Your task to perform on an android device: delete location history Image 0: 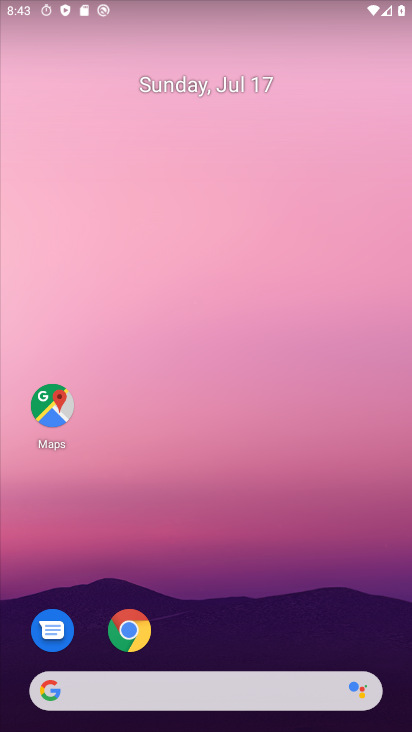
Step 0: drag from (0, 724) to (237, 141)
Your task to perform on an android device: delete location history Image 1: 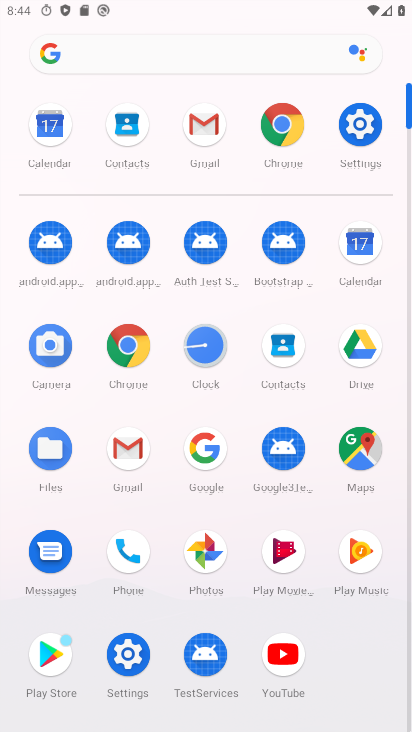
Step 1: click (130, 651)
Your task to perform on an android device: delete location history Image 2: 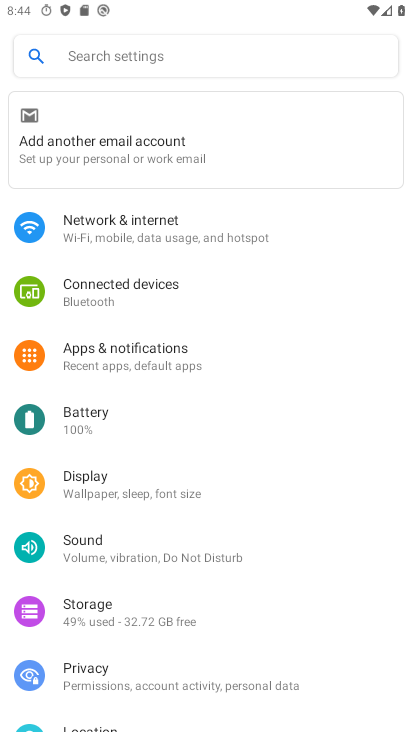
Step 2: drag from (251, 648) to (278, 335)
Your task to perform on an android device: delete location history Image 3: 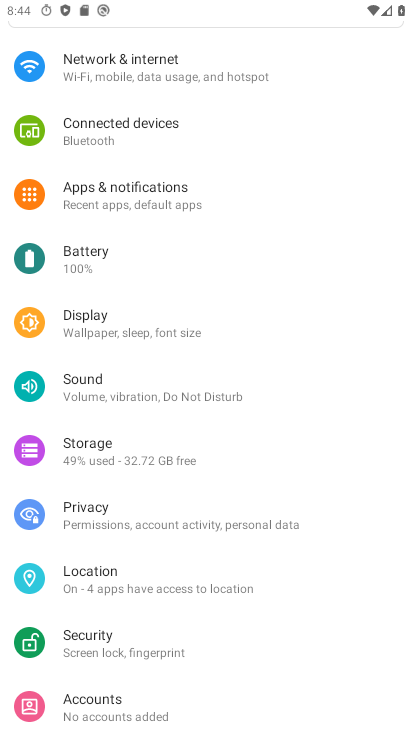
Step 3: click (81, 581)
Your task to perform on an android device: delete location history Image 4: 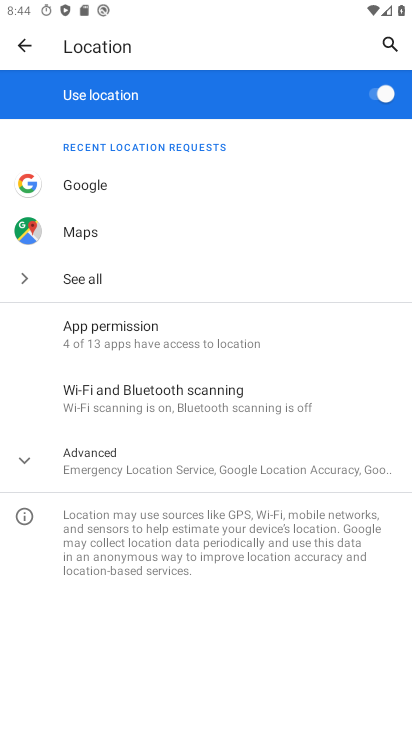
Step 4: click (107, 458)
Your task to perform on an android device: delete location history Image 5: 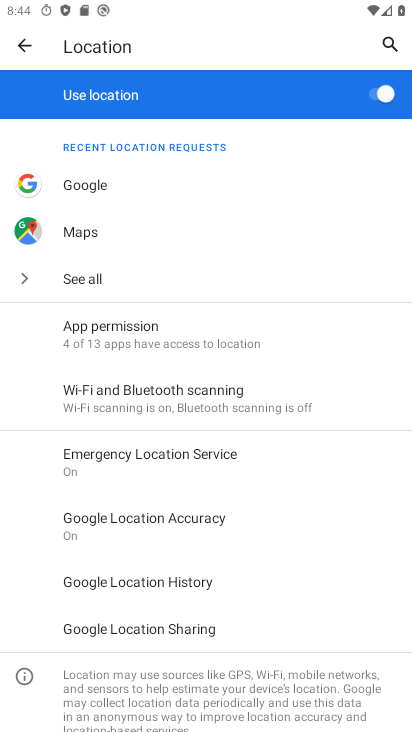
Step 5: click (143, 583)
Your task to perform on an android device: delete location history Image 6: 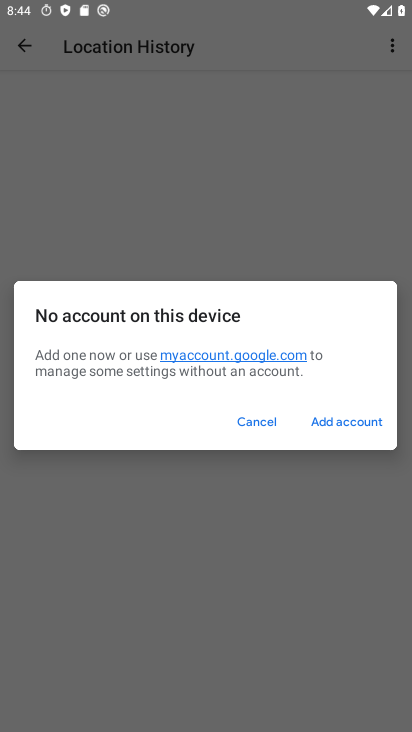
Step 6: click (328, 434)
Your task to perform on an android device: delete location history Image 7: 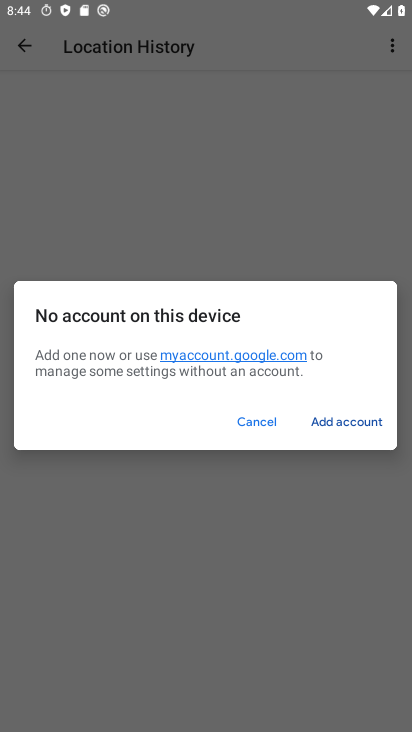
Step 7: click (329, 431)
Your task to perform on an android device: delete location history Image 8: 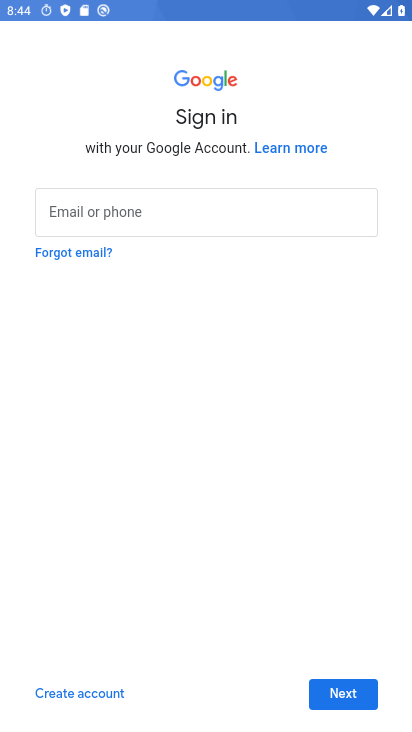
Step 8: task complete